Your task to perform on an android device: Open sound settings Image 0: 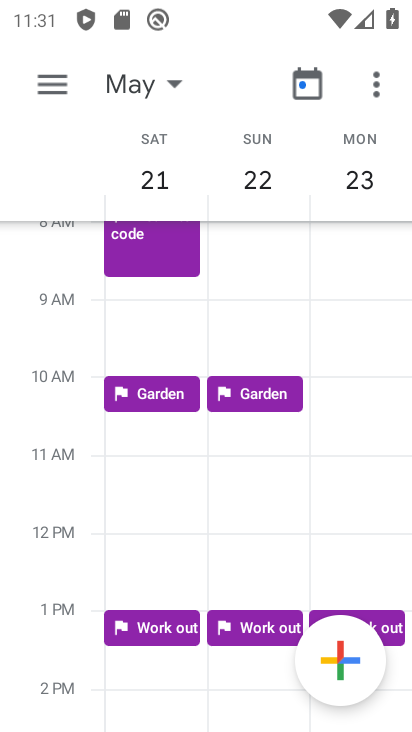
Step 0: press home button
Your task to perform on an android device: Open sound settings Image 1: 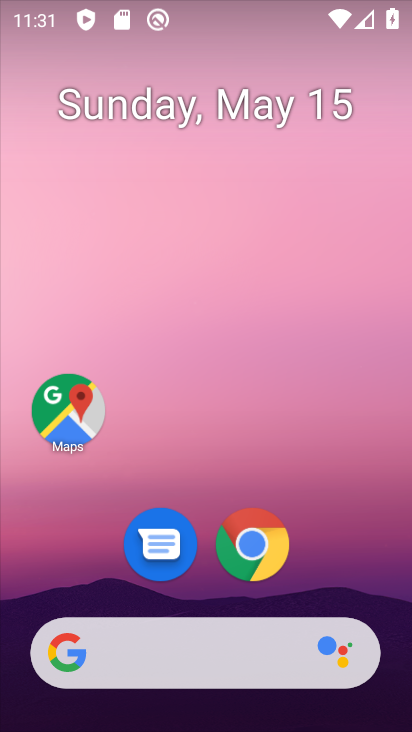
Step 1: drag from (364, 550) to (292, 151)
Your task to perform on an android device: Open sound settings Image 2: 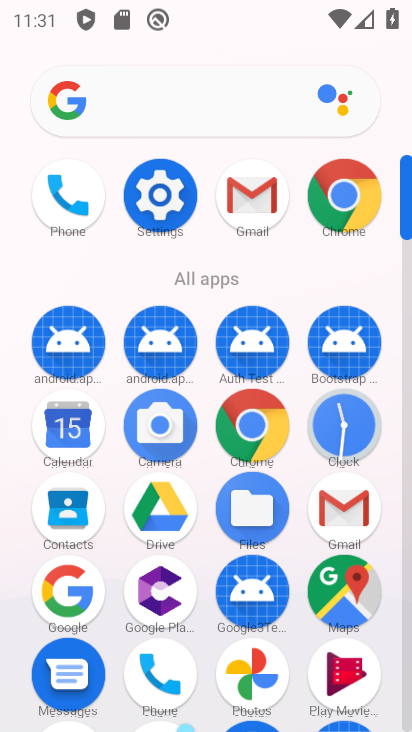
Step 2: click (168, 194)
Your task to perform on an android device: Open sound settings Image 3: 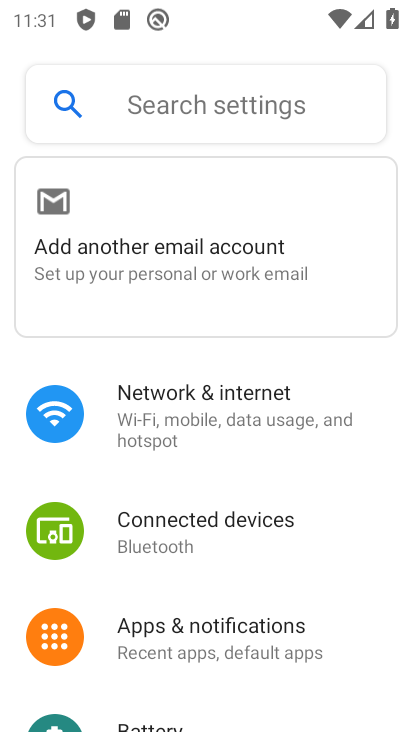
Step 3: drag from (288, 636) to (219, 280)
Your task to perform on an android device: Open sound settings Image 4: 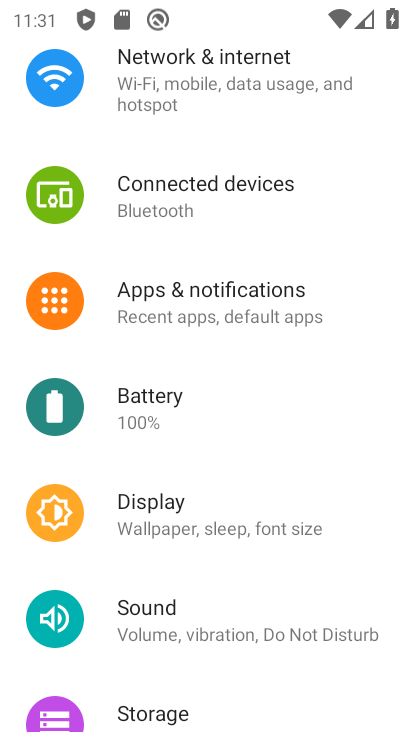
Step 4: click (271, 601)
Your task to perform on an android device: Open sound settings Image 5: 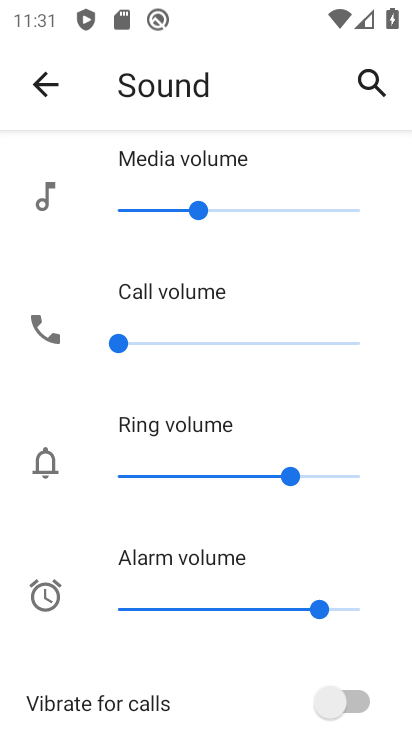
Step 5: task complete